Your task to perform on an android device: turn on priority inbox in the gmail app Image 0: 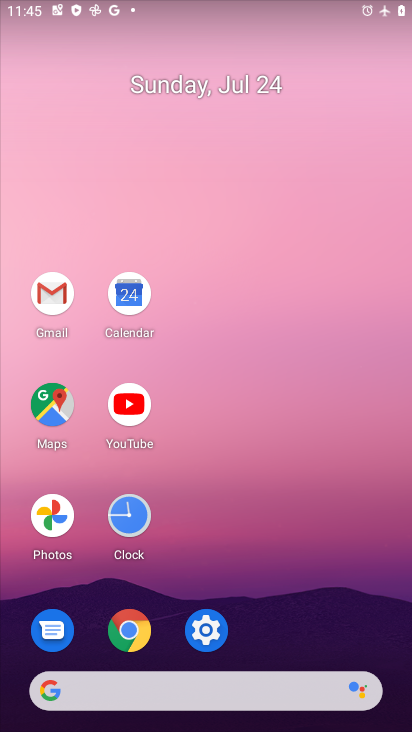
Step 0: click (54, 292)
Your task to perform on an android device: turn on priority inbox in the gmail app Image 1: 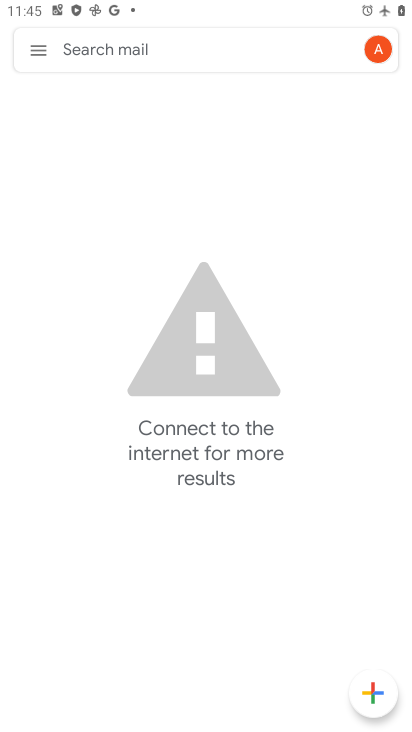
Step 1: click (30, 48)
Your task to perform on an android device: turn on priority inbox in the gmail app Image 2: 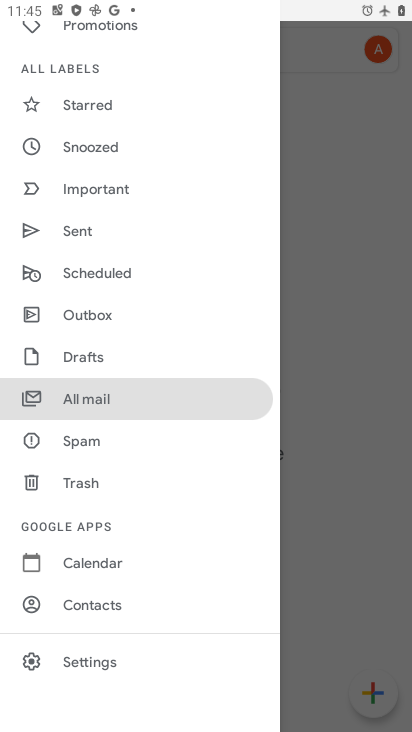
Step 2: click (80, 661)
Your task to perform on an android device: turn on priority inbox in the gmail app Image 3: 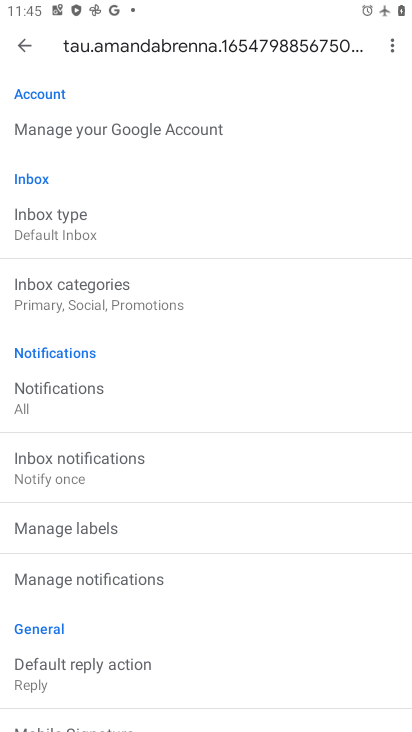
Step 3: click (49, 225)
Your task to perform on an android device: turn on priority inbox in the gmail app Image 4: 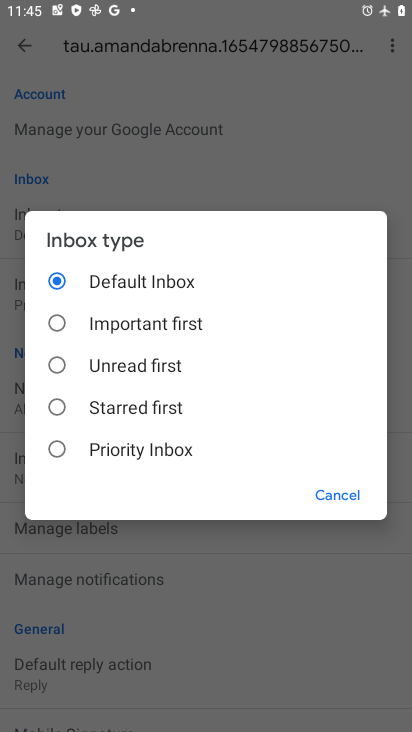
Step 4: click (47, 447)
Your task to perform on an android device: turn on priority inbox in the gmail app Image 5: 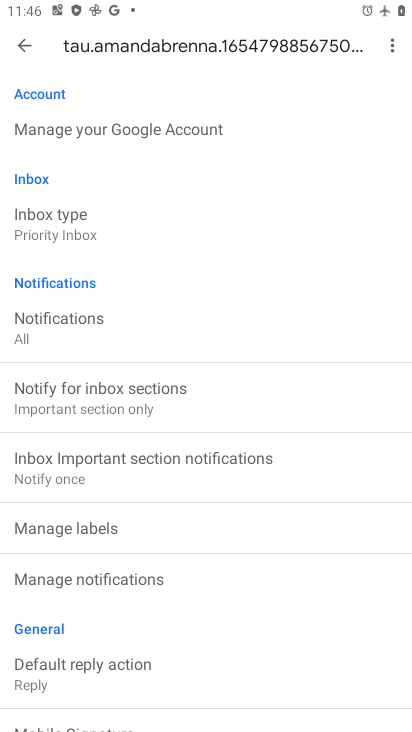
Step 5: task complete